Your task to perform on an android device: turn on wifi Image 0: 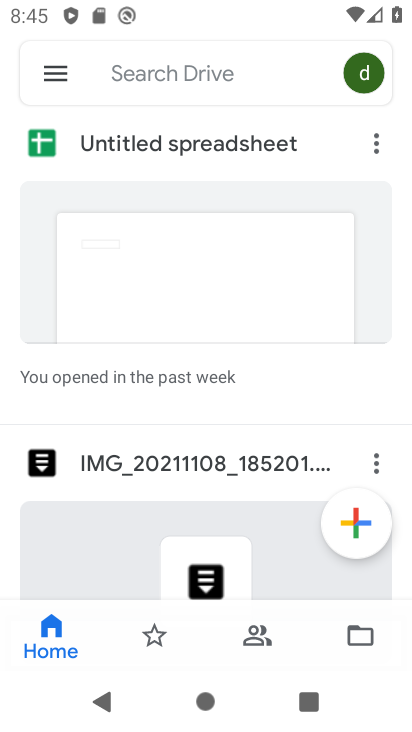
Step 0: press home button
Your task to perform on an android device: turn on wifi Image 1: 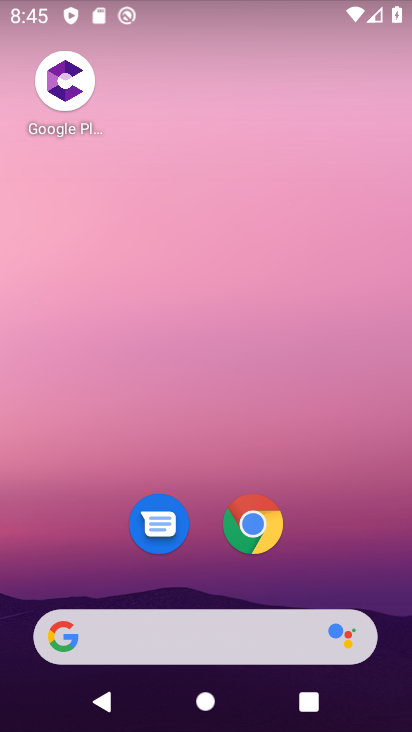
Step 1: drag from (207, 475) to (230, 23)
Your task to perform on an android device: turn on wifi Image 2: 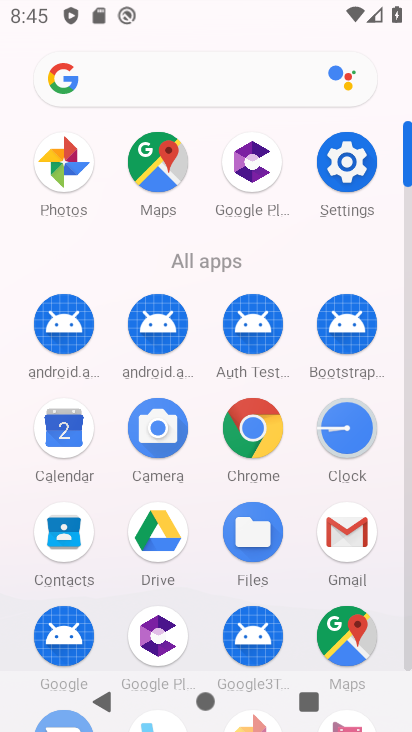
Step 2: click (335, 143)
Your task to perform on an android device: turn on wifi Image 3: 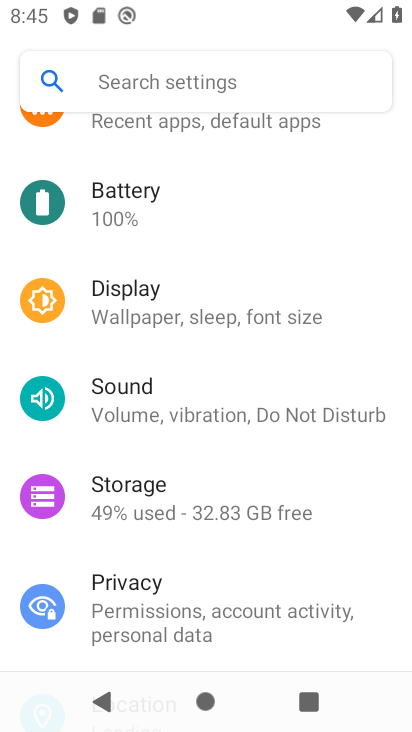
Step 3: drag from (291, 235) to (234, 590)
Your task to perform on an android device: turn on wifi Image 4: 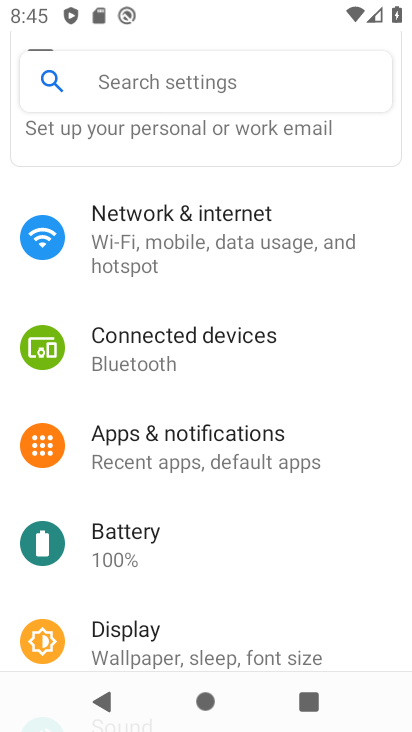
Step 4: click (260, 223)
Your task to perform on an android device: turn on wifi Image 5: 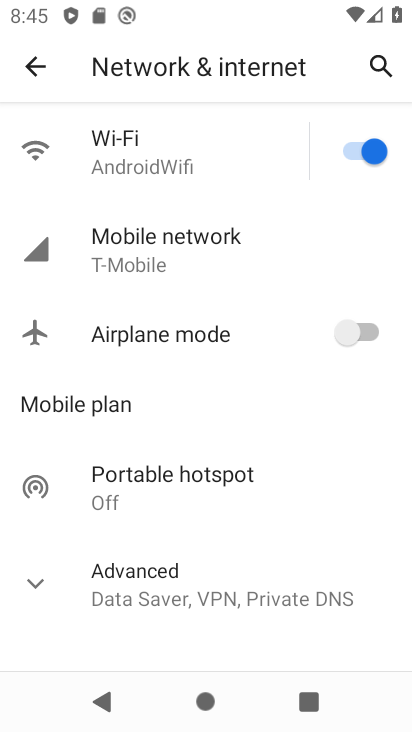
Step 5: task complete